Your task to perform on an android device: toggle wifi Image 0: 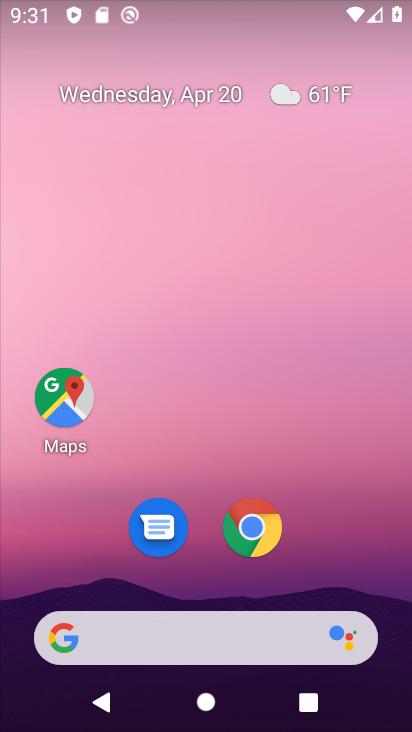
Step 0: drag from (219, 673) to (160, 309)
Your task to perform on an android device: toggle wifi Image 1: 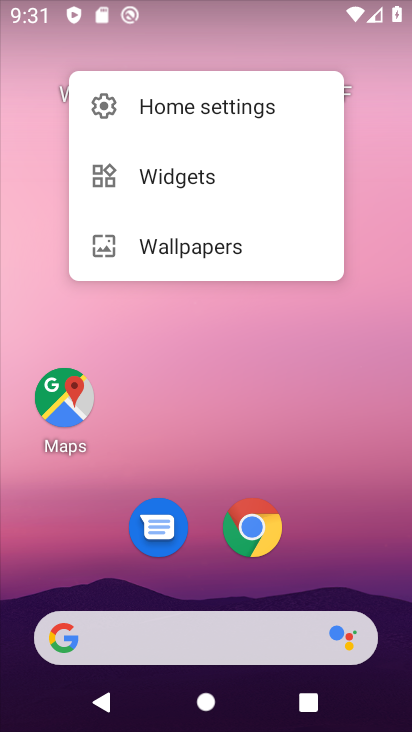
Step 1: drag from (257, 617) to (186, 133)
Your task to perform on an android device: toggle wifi Image 2: 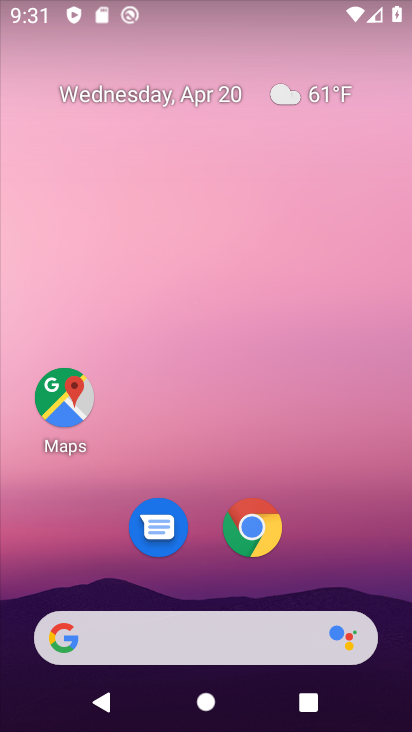
Step 2: drag from (180, 460) to (158, 160)
Your task to perform on an android device: toggle wifi Image 3: 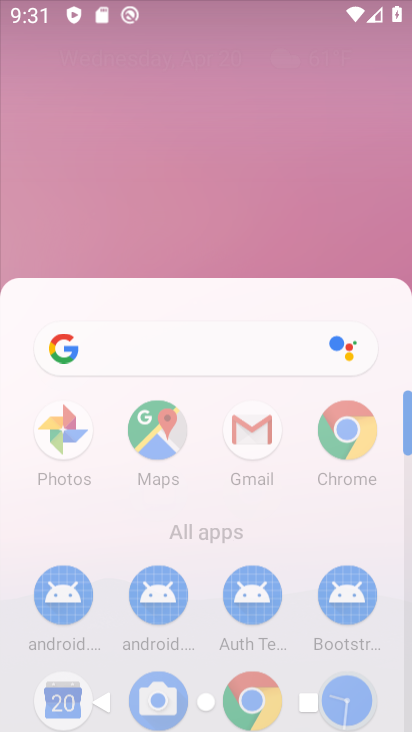
Step 3: drag from (167, 438) to (245, 54)
Your task to perform on an android device: toggle wifi Image 4: 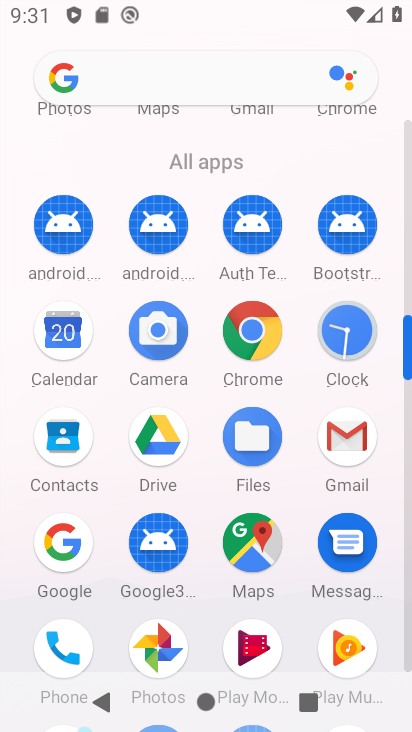
Step 4: drag from (387, 562) to (397, 641)
Your task to perform on an android device: toggle wifi Image 5: 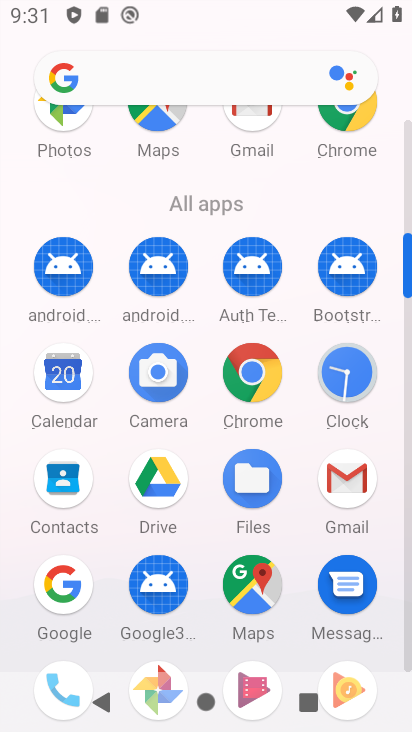
Step 5: click (399, 640)
Your task to perform on an android device: toggle wifi Image 6: 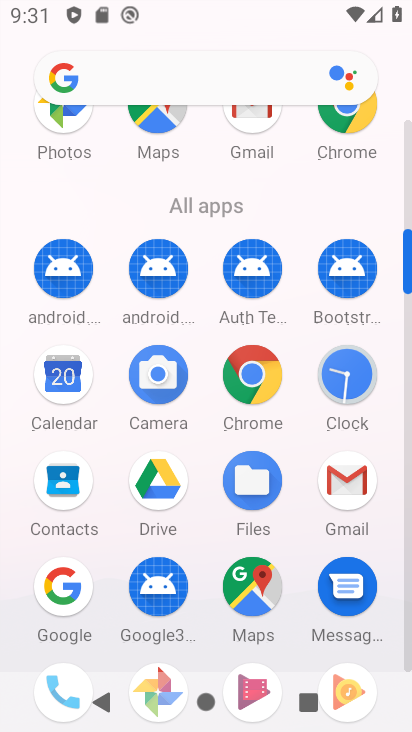
Step 6: click (406, 635)
Your task to perform on an android device: toggle wifi Image 7: 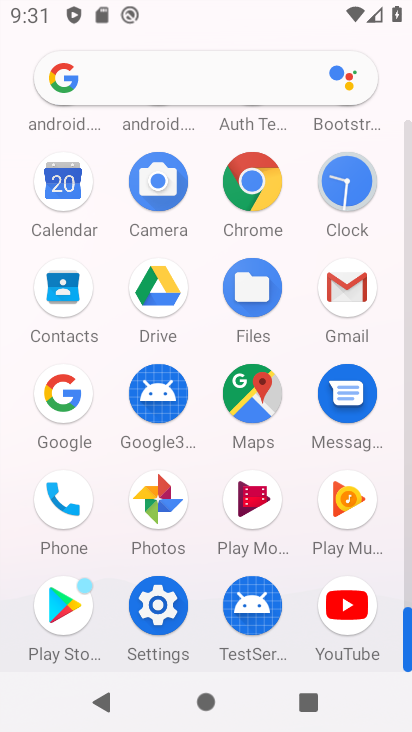
Step 7: click (160, 610)
Your task to perform on an android device: toggle wifi Image 8: 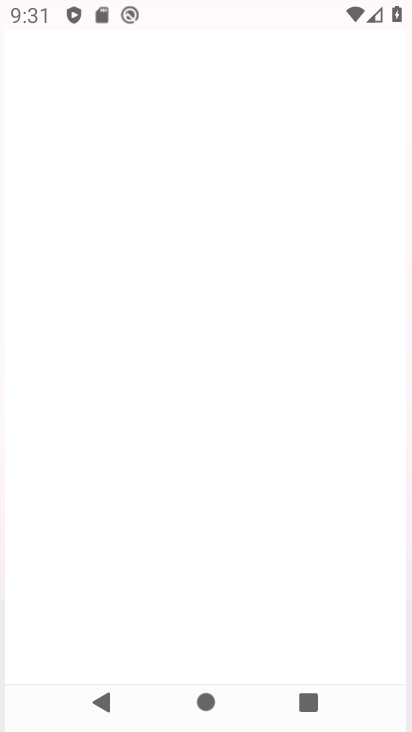
Step 8: click (160, 610)
Your task to perform on an android device: toggle wifi Image 9: 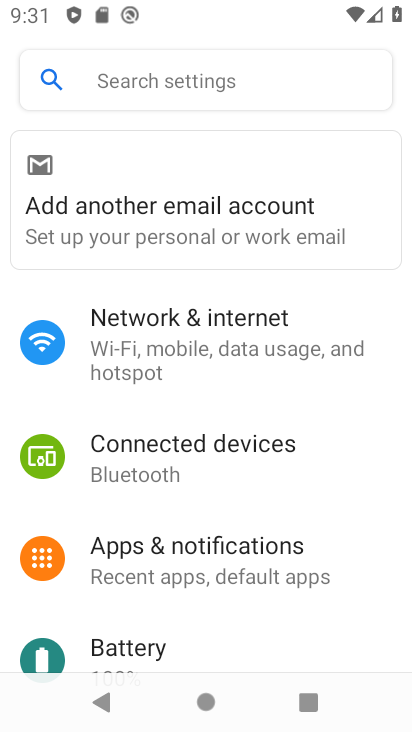
Step 9: click (216, 345)
Your task to perform on an android device: toggle wifi Image 10: 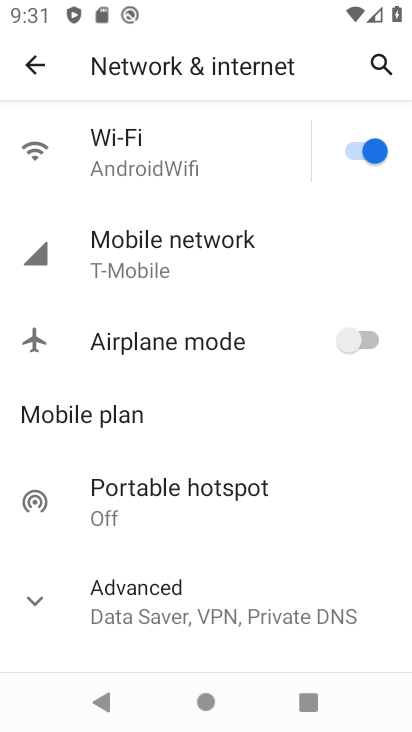
Step 10: click (367, 142)
Your task to perform on an android device: toggle wifi Image 11: 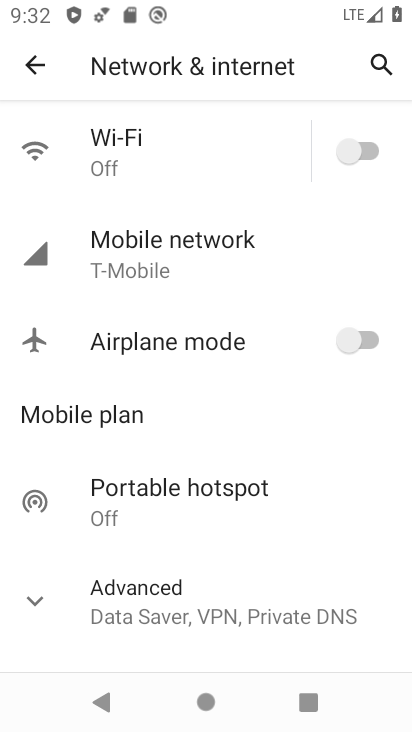
Step 11: task complete